Your task to perform on an android device: Open Chrome and go to settings Image 0: 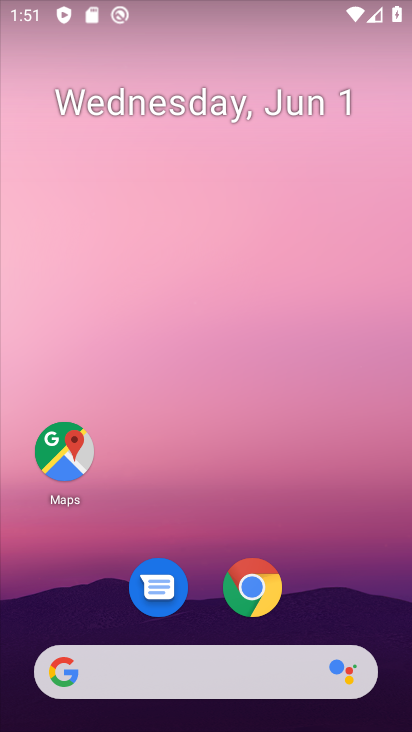
Step 0: click (253, 590)
Your task to perform on an android device: Open Chrome and go to settings Image 1: 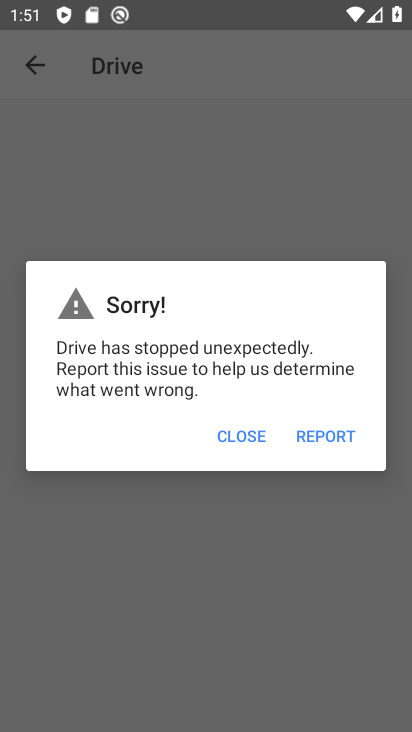
Step 1: click (244, 441)
Your task to perform on an android device: Open Chrome and go to settings Image 2: 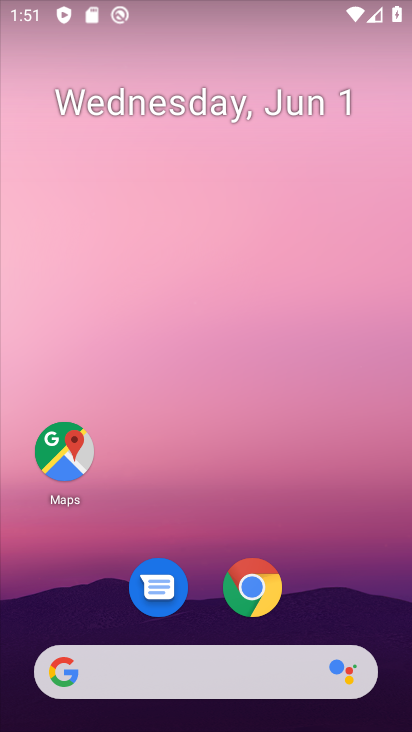
Step 2: click (260, 584)
Your task to perform on an android device: Open Chrome and go to settings Image 3: 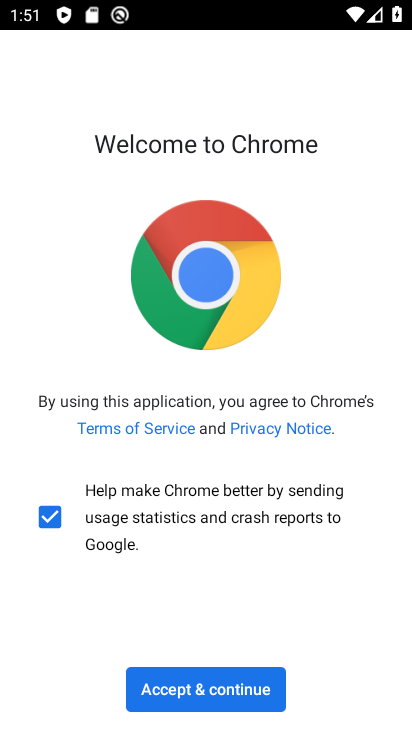
Step 3: click (220, 690)
Your task to perform on an android device: Open Chrome and go to settings Image 4: 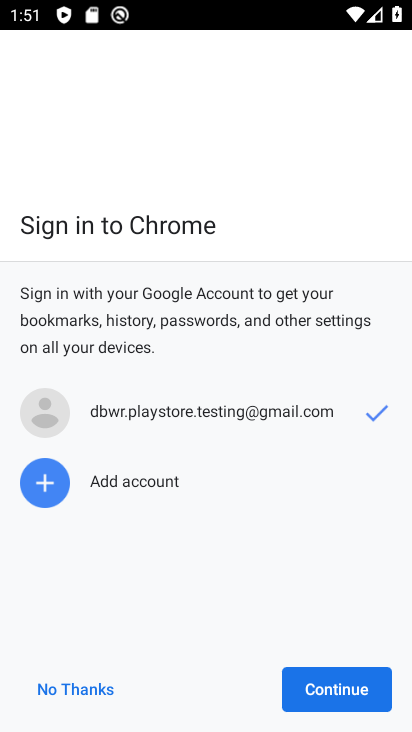
Step 4: click (318, 688)
Your task to perform on an android device: Open Chrome and go to settings Image 5: 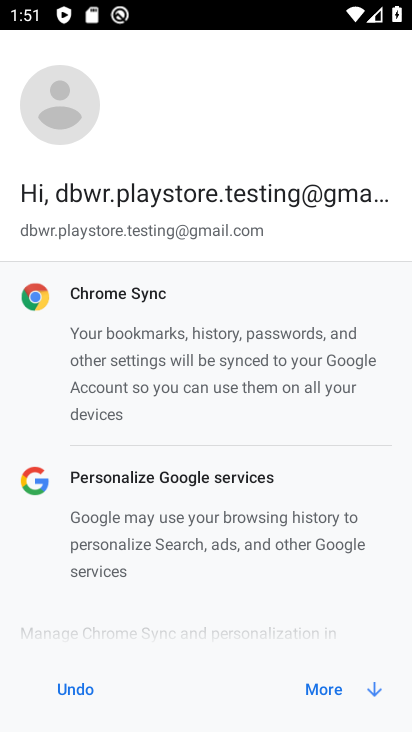
Step 5: click (318, 688)
Your task to perform on an android device: Open Chrome and go to settings Image 6: 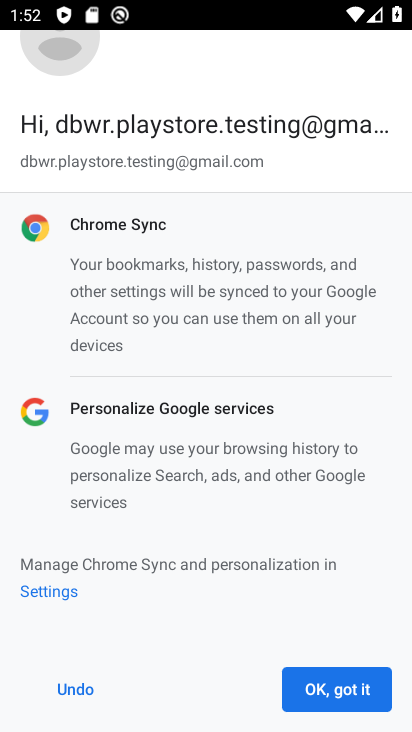
Step 6: click (316, 683)
Your task to perform on an android device: Open Chrome and go to settings Image 7: 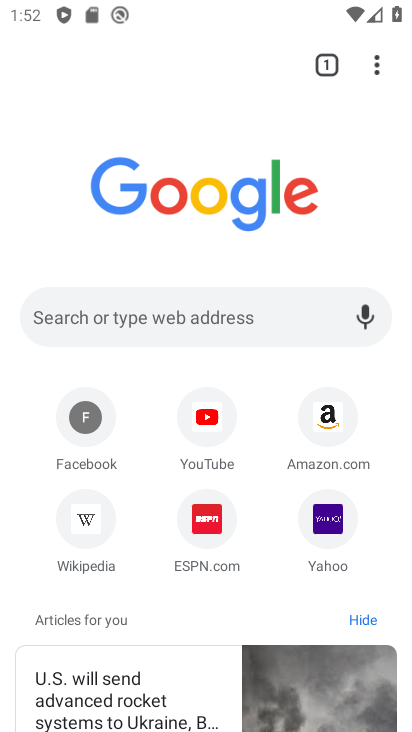
Step 7: task complete